Your task to perform on an android device: Go to Yahoo.com Image 0: 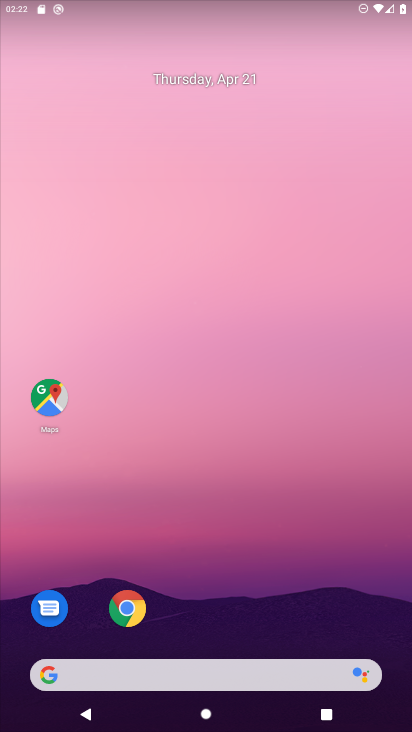
Step 0: drag from (247, 632) to (226, 177)
Your task to perform on an android device: Go to Yahoo.com Image 1: 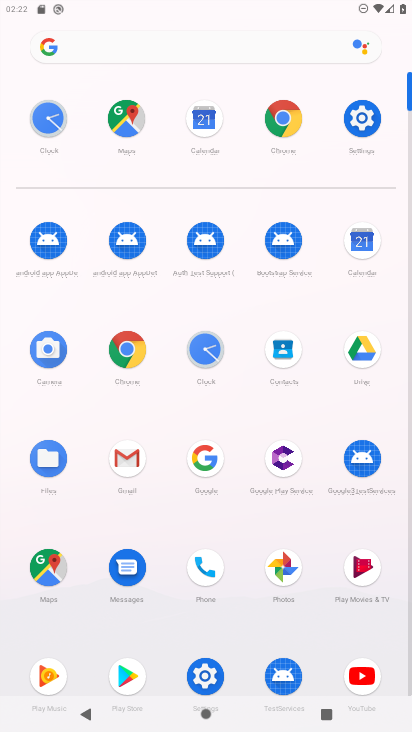
Step 1: click (276, 118)
Your task to perform on an android device: Go to Yahoo.com Image 2: 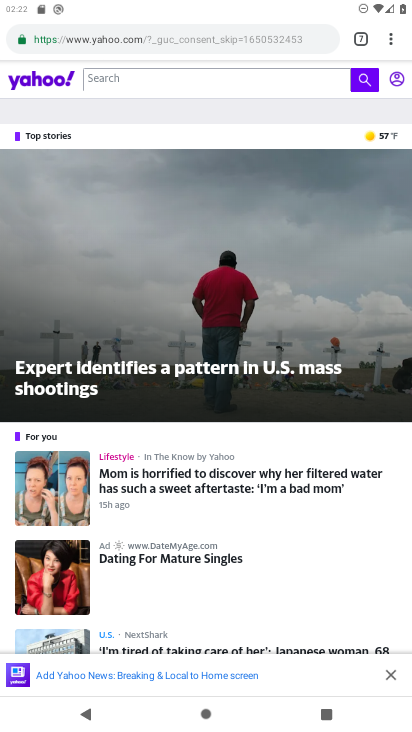
Step 2: task complete